Your task to perform on an android device: turn on priority inbox in the gmail app Image 0: 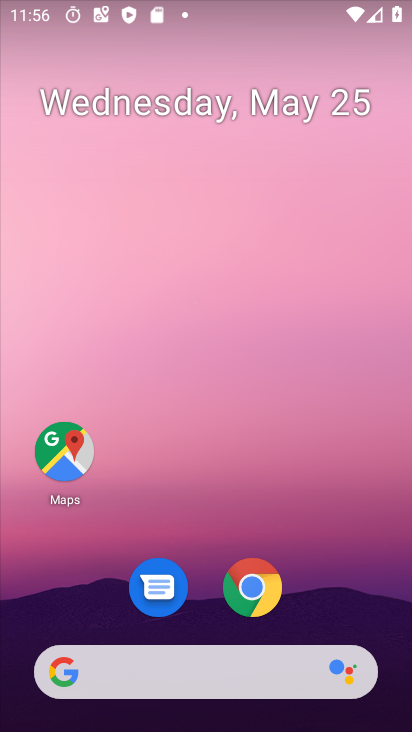
Step 0: drag from (239, 700) to (261, 75)
Your task to perform on an android device: turn on priority inbox in the gmail app Image 1: 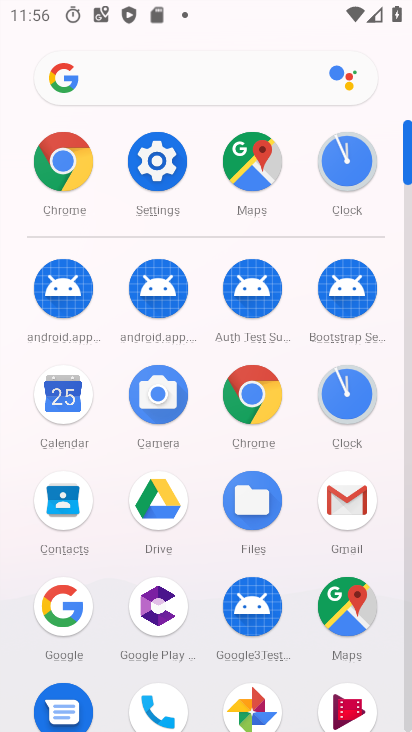
Step 1: click (325, 512)
Your task to perform on an android device: turn on priority inbox in the gmail app Image 2: 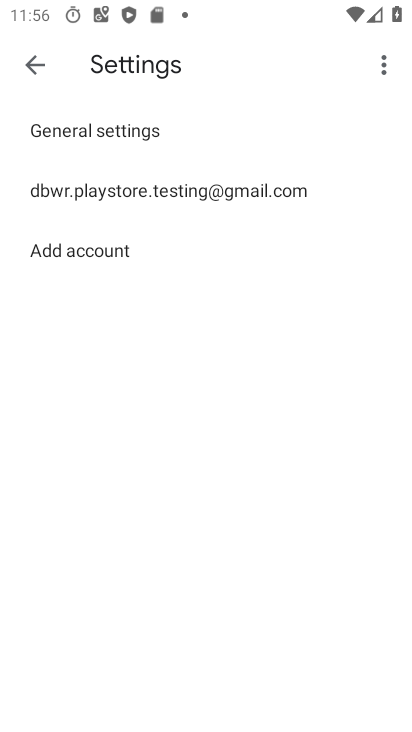
Step 2: click (184, 198)
Your task to perform on an android device: turn on priority inbox in the gmail app Image 3: 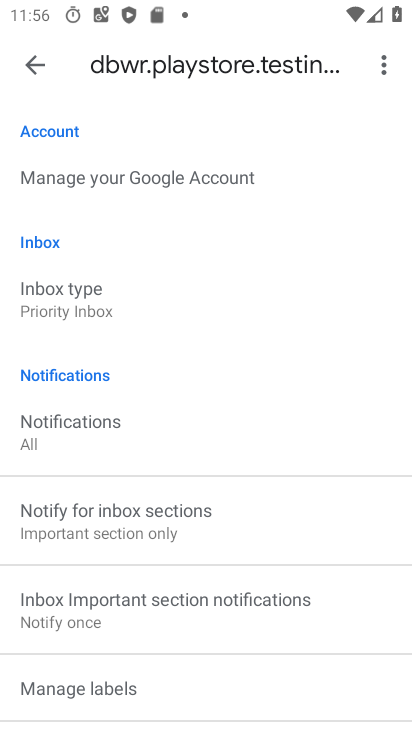
Step 3: click (100, 306)
Your task to perform on an android device: turn on priority inbox in the gmail app Image 4: 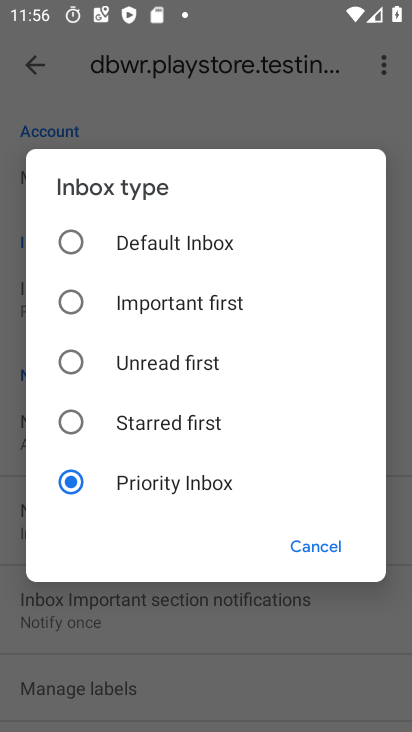
Step 4: task complete